Your task to perform on an android device: Open Google Image 0: 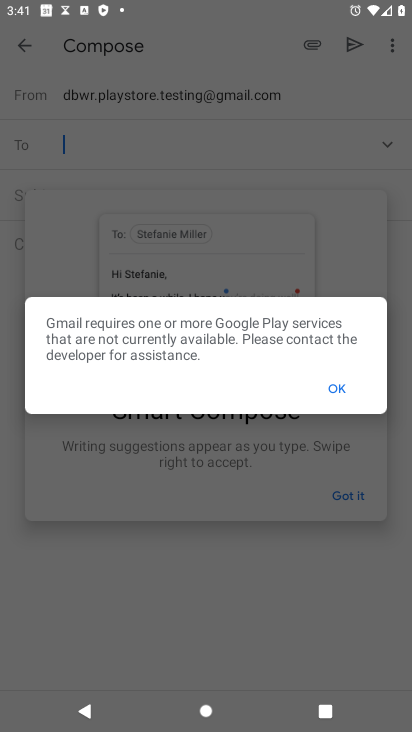
Step 0: press home button
Your task to perform on an android device: Open Google Image 1: 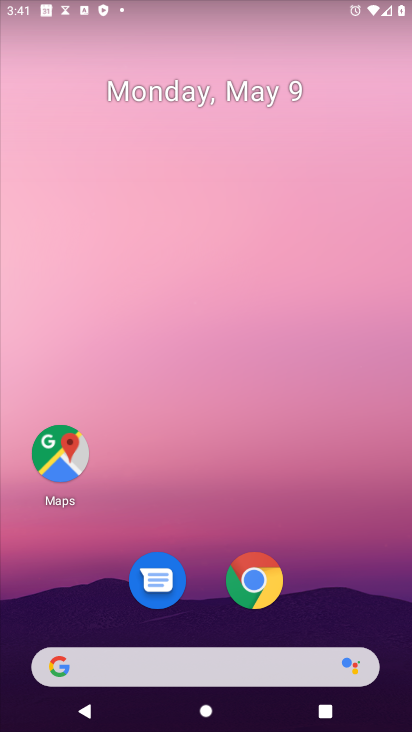
Step 1: click (41, 666)
Your task to perform on an android device: Open Google Image 2: 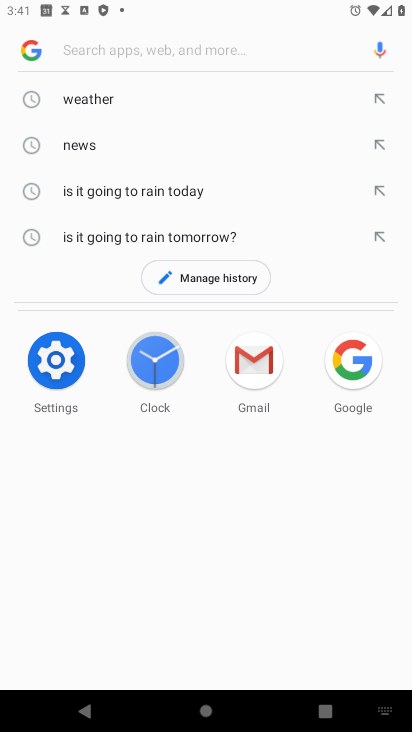
Step 2: task complete